Your task to perform on an android device: toggle javascript in the chrome app Image 0: 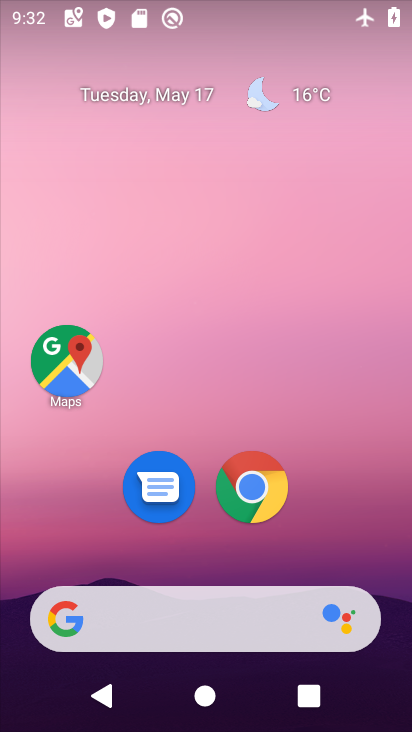
Step 0: click (251, 500)
Your task to perform on an android device: toggle javascript in the chrome app Image 1: 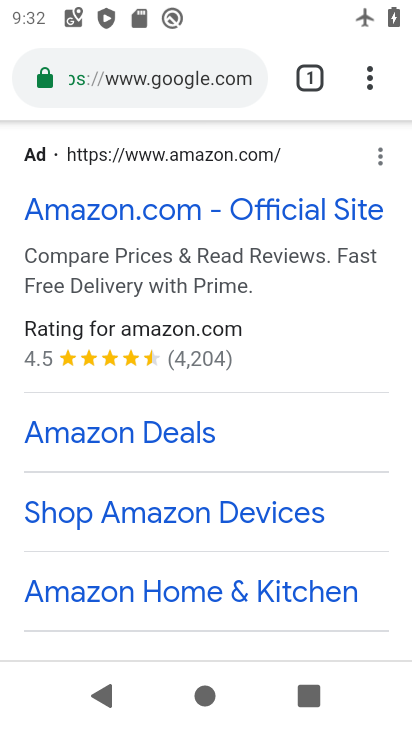
Step 1: click (373, 81)
Your task to perform on an android device: toggle javascript in the chrome app Image 2: 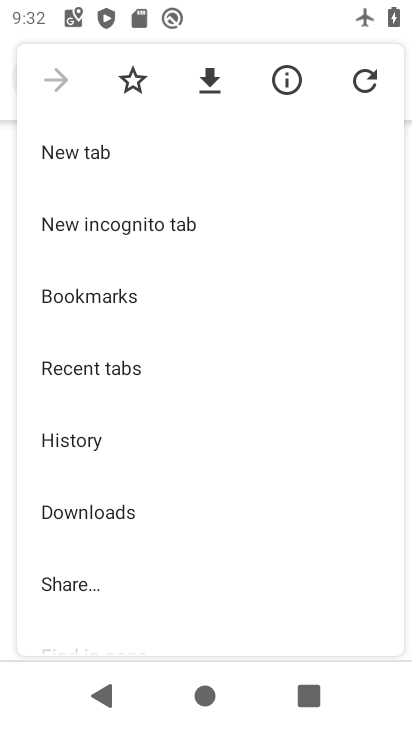
Step 2: drag from (129, 546) to (178, 287)
Your task to perform on an android device: toggle javascript in the chrome app Image 3: 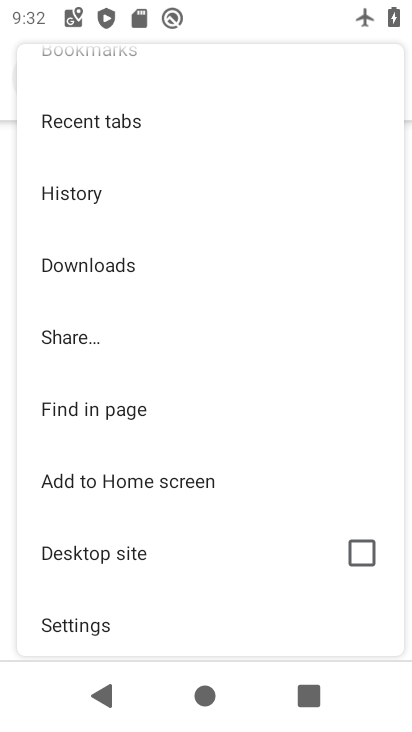
Step 3: drag from (78, 567) to (138, 274)
Your task to perform on an android device: toggle javascript in the chrome app Image 4: 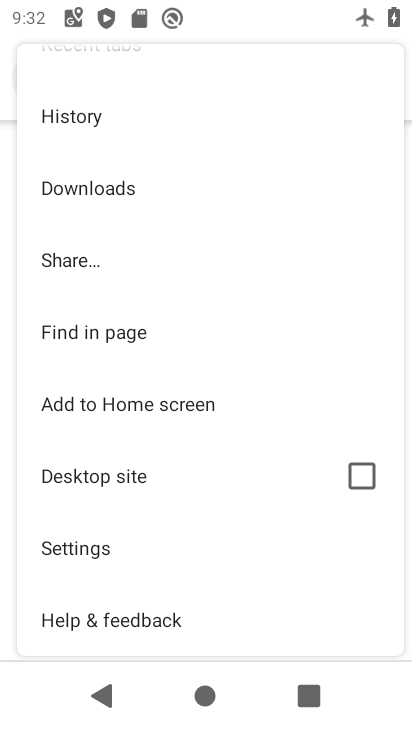
Step 4: click (97, 552)
Your task to perform on an android device: toggle javascript in the chrome app Image 5: 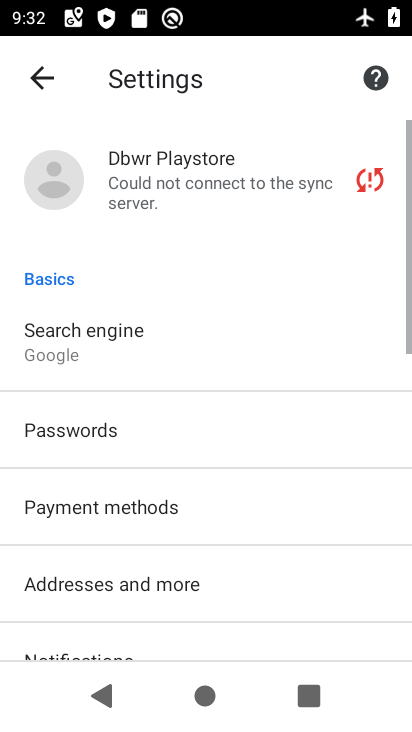
Step 5: drag from (107, 524) to (150, 260)
Your task to perform on an android device: toggle javascript in the chrome app Image 6: 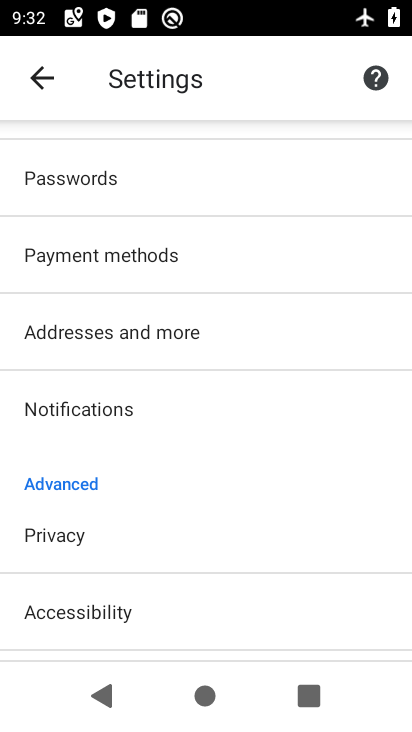
Step 6: drag from (94, 516) to (157, 261)
Your task to perform on an android device: toggle javascript in the chrome app Image 7: 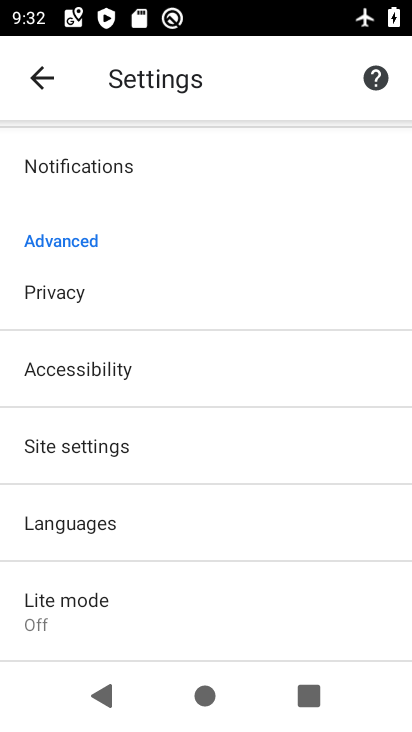
Step 7: click (92, 449)
Your task to perform on an android device: toggle javascript in the chrome app Image 8: 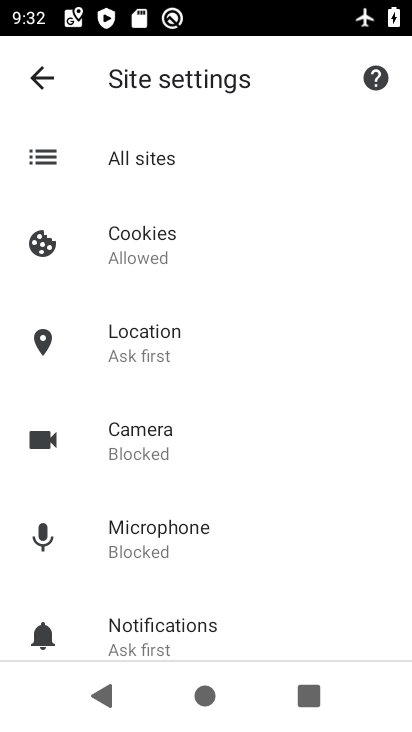
Step 8: drag from (159, 457) to (173, 236)
Your task to perform on an android device: toggle javascript in the chrome app Image 9: 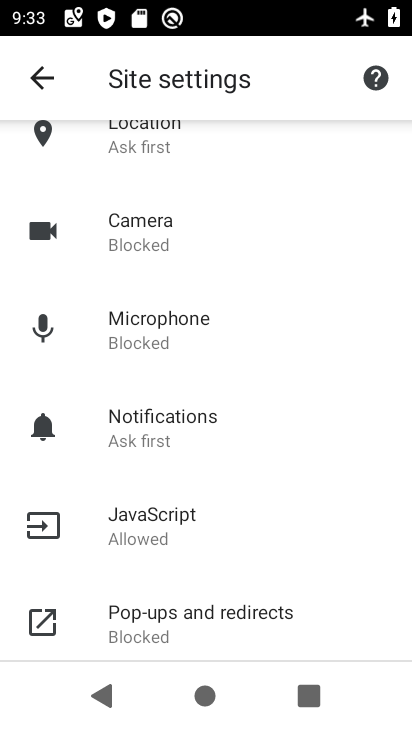
Step 9: click (145, 527)
Your task to perform on an android device: toggle javascript in the chrome app Image 10: 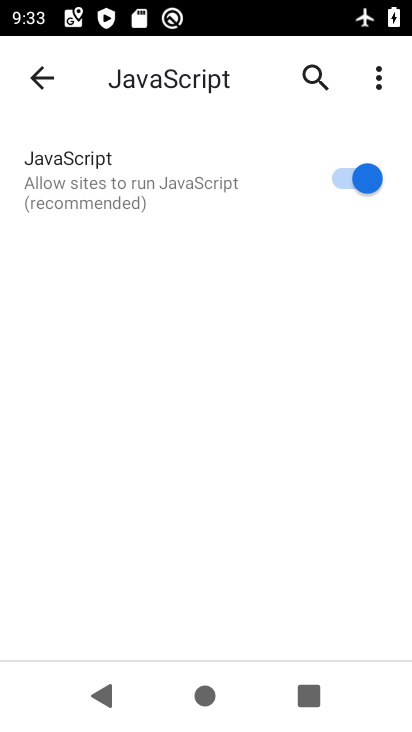
Step 10: click (325, 179)
Your task to perform on an android device: toggle javascript in the chrome app Image 11: 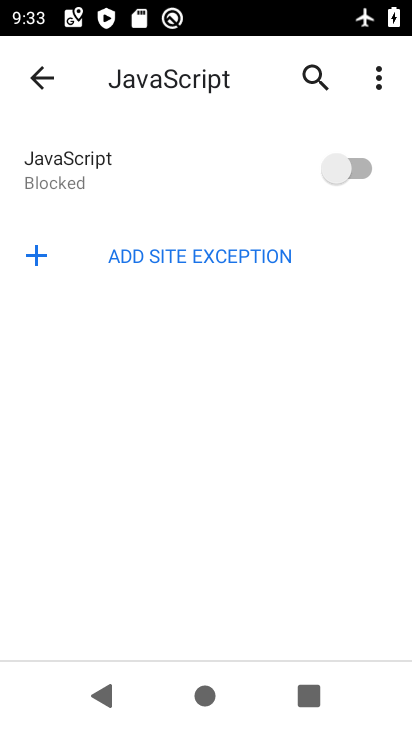
Step 11: task complete